Your task to perform on an android device: allow notifications from all sites in the chrome app Image 0: 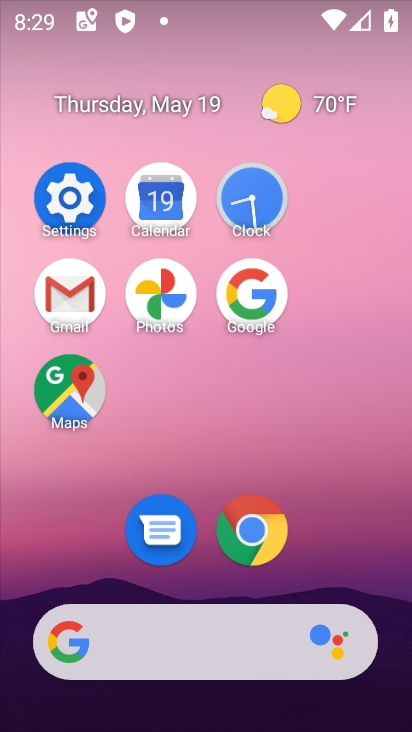
Step 0: click (262, 552)
Your task to perform on an android device: allow notifications from all sites in the chrome app Image 1: 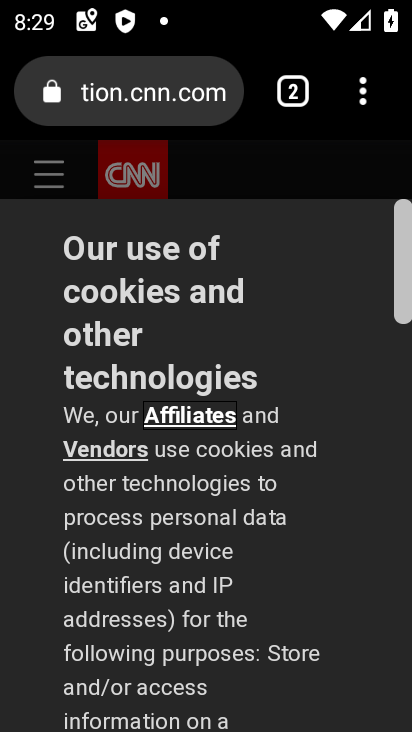
Step 1: click (364, 73)
Your task to perform on an android device: allow notifications from all sites in the chrome app Image 2: 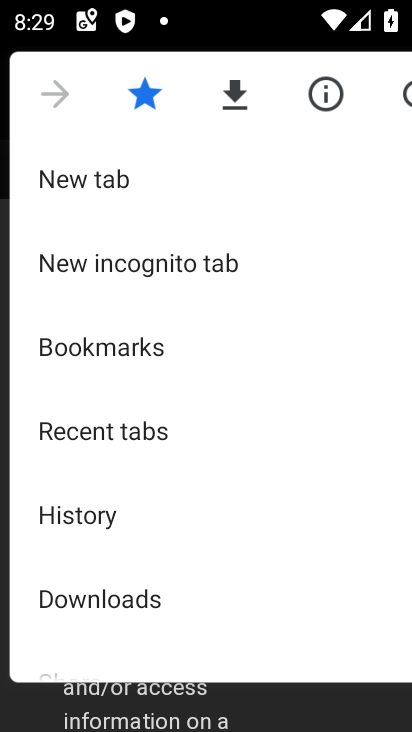
Step 2: drag from (251, 543) to (253, 85)
Your task to perform on an android device: allow notifications from all sites in the chrome app Image 3: 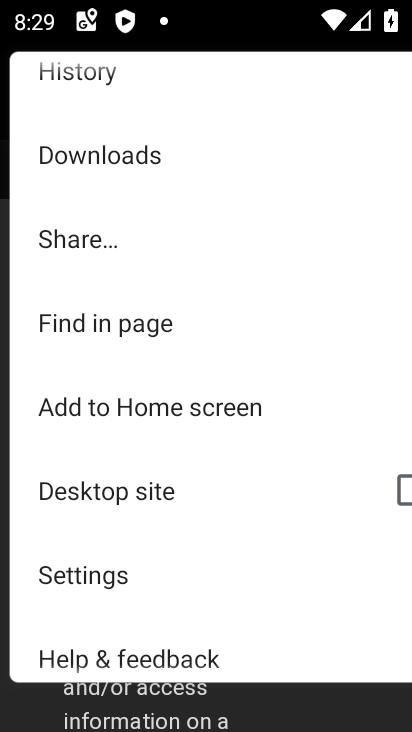
Step 3: click (156, 586)
Your task to perform on an android device: allow notifications from all sites in the chrome app Image 4: 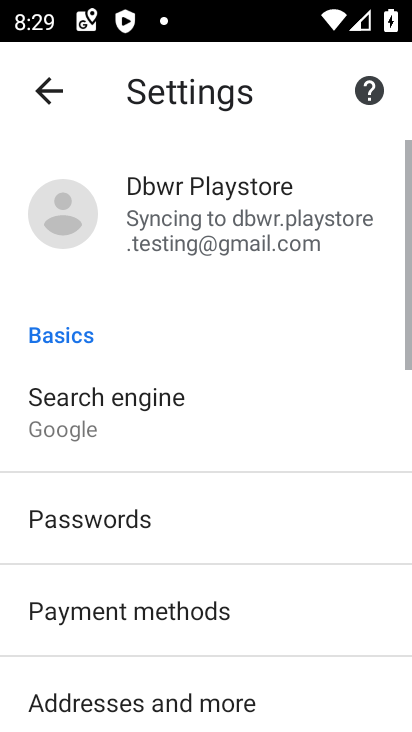
Step 4: drag from (152, 578) to (193, 181)
Your task to perform on an android device: allow notifications from all sites in the chrome app Image 5: 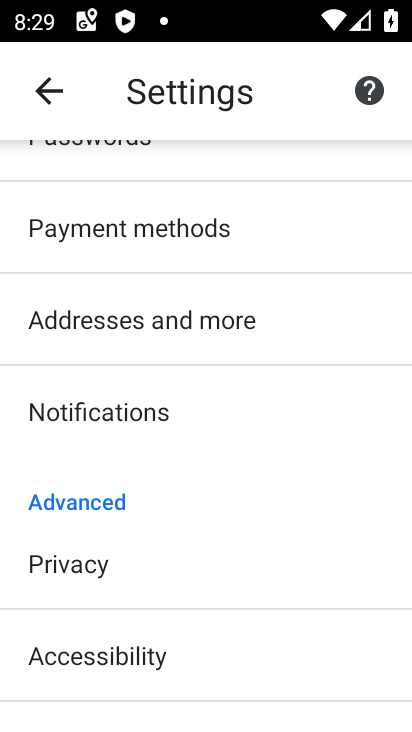
Step 5: click (188, 450)
Your task to perform on an android device: allow notifications from all sites in the chrome app Image 6: 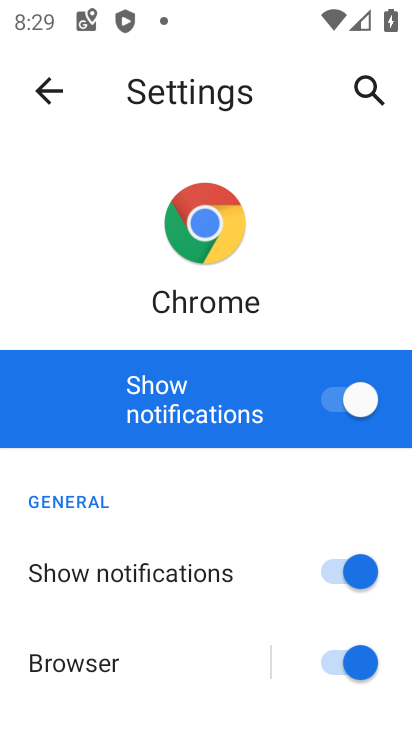
Step 6: task complete